Your task to perform on an android device: toggle sleep mode Image 0: 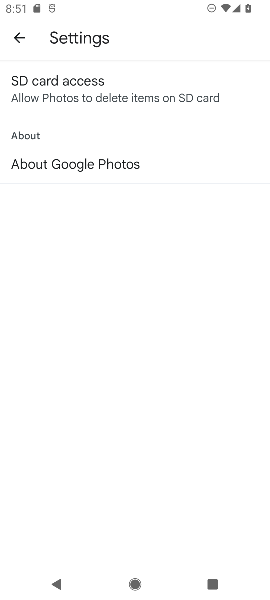
Step 0: press home button
Your task to perform on an android device: toggle sleep mode Image 1: 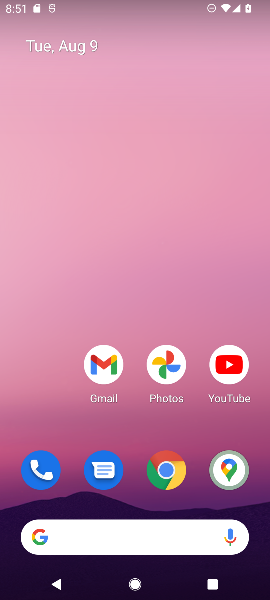
Step 1: drag from (92, 539) to (204, 17)
Your task to perform on an android device: toggle sleep mode Image 2: 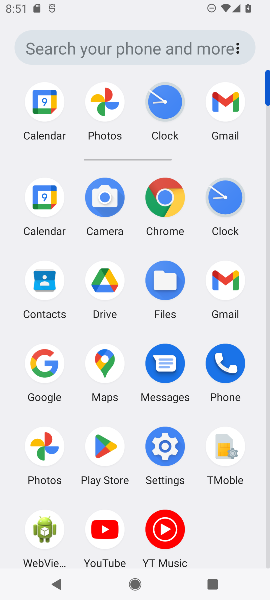
Step 2: click (169, 447)
Your task to perform on an android device: toggle sleep mode Image 3: 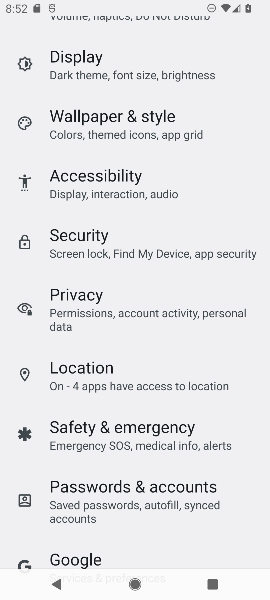
Step 3: drag from (154, 160) to (139, 241)
Your task to perform on an android device: toggle sleep mode Image 4: 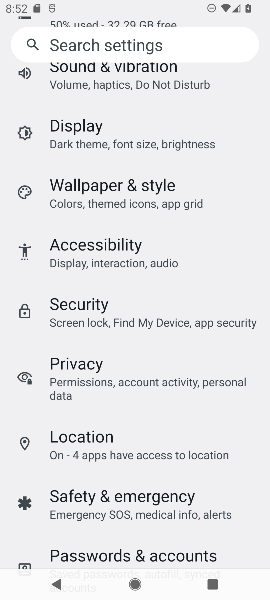
Step 4: drag from (183, 116) to (160, 222)
Your task to perform on an android device: toggle sleep mode Image 5: 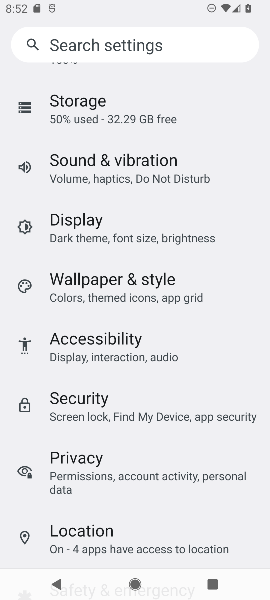
Step 5: drag from (131, 374) to (157, 294)
Your task to perform on an android device: toggle sleep mode Image 6: 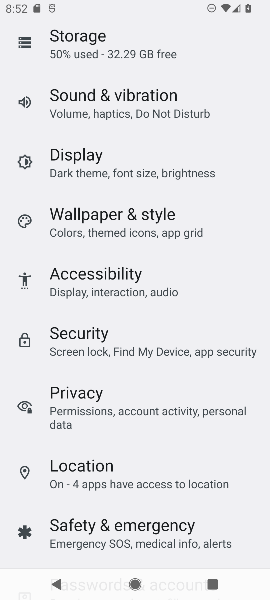
Step 6: drag from (141, 375) to (175, 284)
Your task to perform on an android device: toggle sleep mode Image 7: 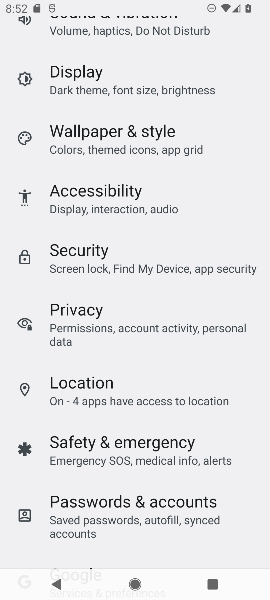
Step 7: drag from (105, 436) to (177, 310)
Your task to perform on an android device: toggle sleep mode Image 8: 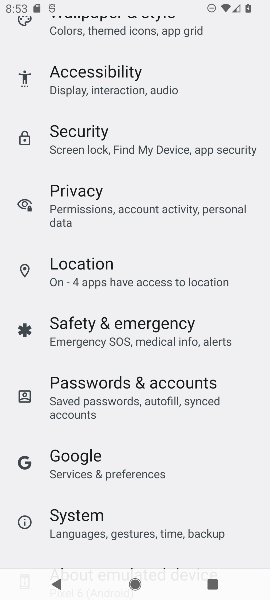
Step 8: drag from (138, 429) to (193, 329)
Your task to perform on an android device: toggle sleep mode Image 9: 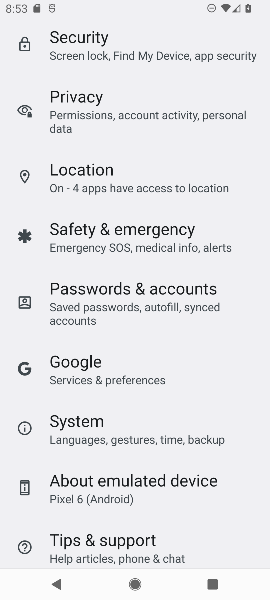
Step 9: drag from (152, 93) to (158, 328)
Your task to perform on an android device: toggle sleep mode Image 10: 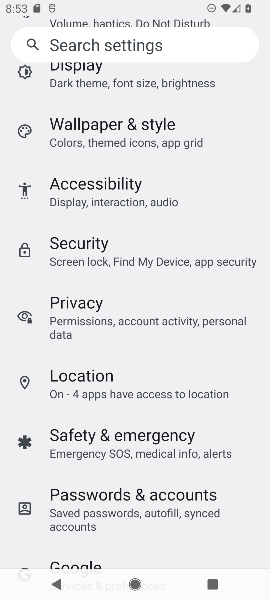
Step 10: drag from (160, 128) to (152, 321)
Your task to perform on an android device: toggle sleep mode Image 11: 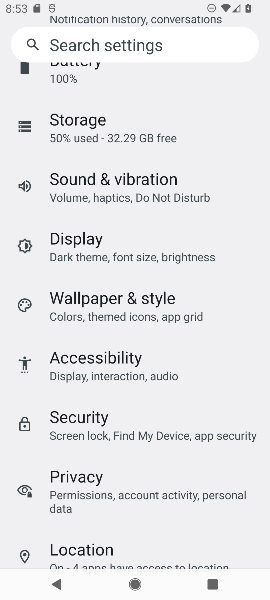
Step 11: click (135, 261)
Your task to perform on an android device: toggle sleep mode Image 12: 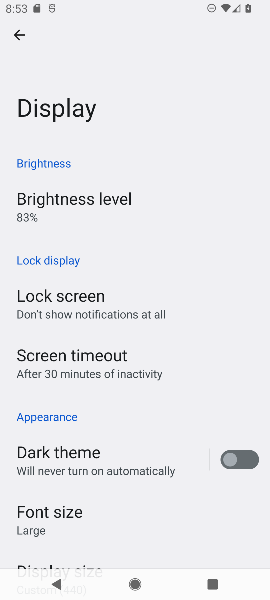
Step 12: drag from (110, 414) to (153, 272)
Your task to perform on an android device: toggle sleep mode Image 13: 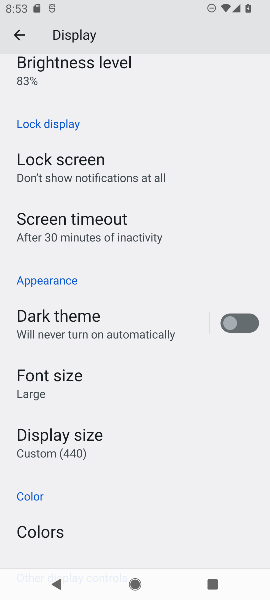
Step 13: drag from (155, 117) to (167, 333)
Your task to perform on an android device: toggle sleep mode Image 14: 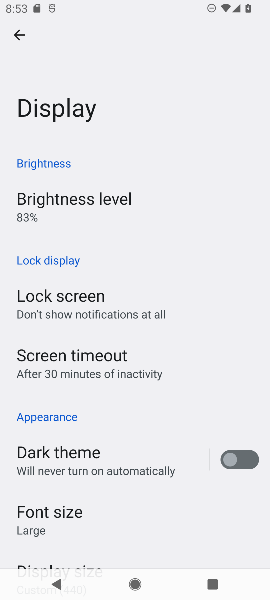
Step 14: drag from (110, 436) to (158, 281)
Your task to perform on an android device: toggle sleep mode Image 15: 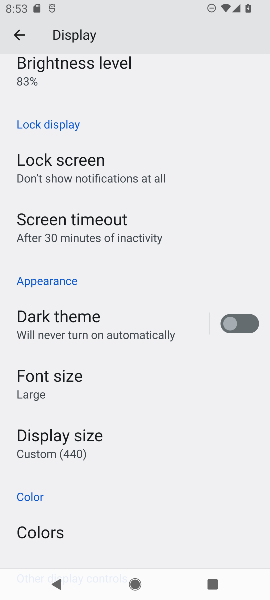
Step 15: click (148, 238)
Your task to perform on an android device: toggle sleep mode Image 16: 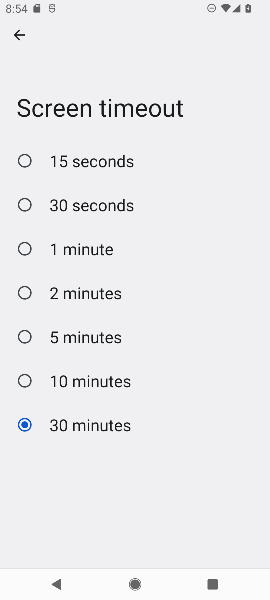
Step 16: task complete